Your task to perform on an android device: turn on notifications settings in the gmail app Image 0: 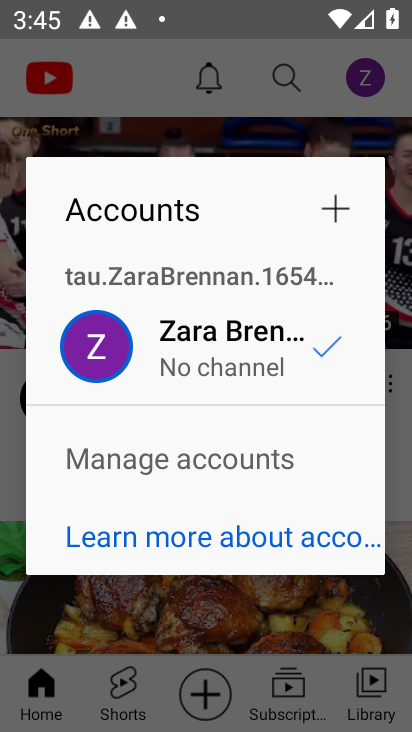
Step 0: press home button
Your task to perform on an android device: turn on notifications settings in the gmail app Image 1: 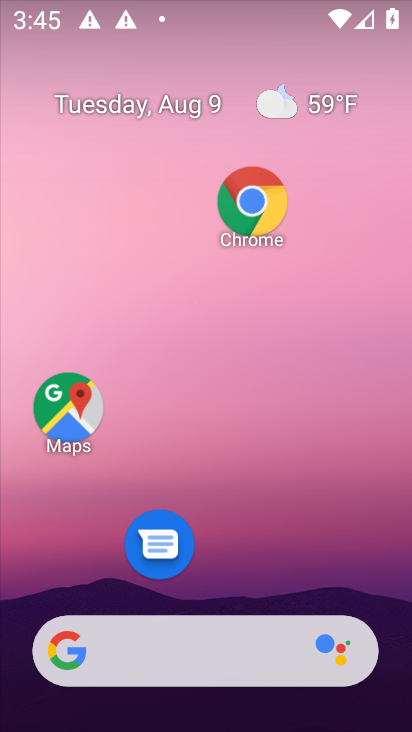
Step 1: drag from (189, 626) to (200, 200)
Your task to perform on an android device: turn on notifications settings in the gmail app Image 2: 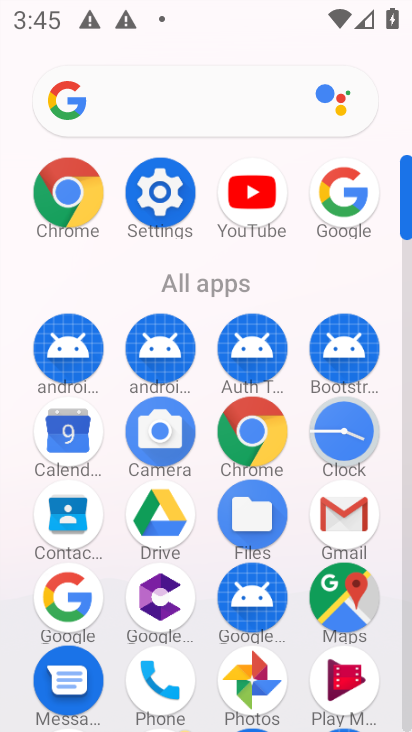
Step 2: click (316, 510)
Your task to perform on an android device: turn on notifications settings in the gmail app Image 3: 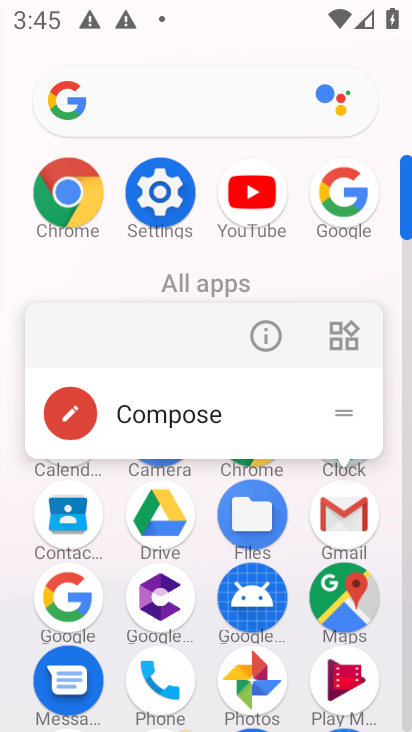
Step 3: click (316, 510)
Your task to perform on an android device: turn on notifications settings in the gmail app Image 4: 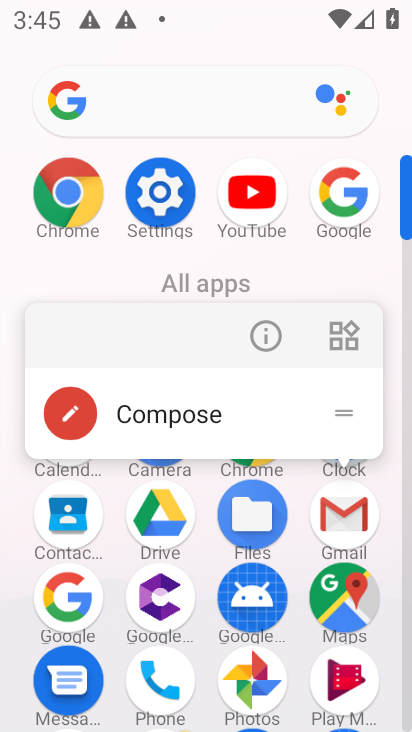
Step 4: click (326, 522)
Your task to perform on an android device: turn on notifications settings in the gmail app Image 5: 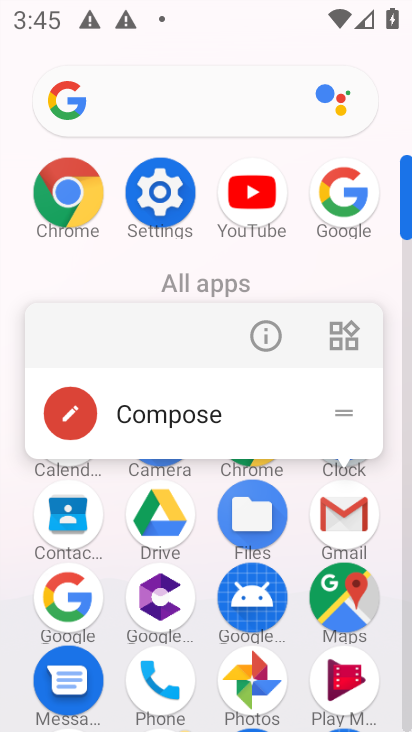
Step 5: click (340, 530)
Your task to perform on an android device: turn on notifications settings in the gmail app Image 6: 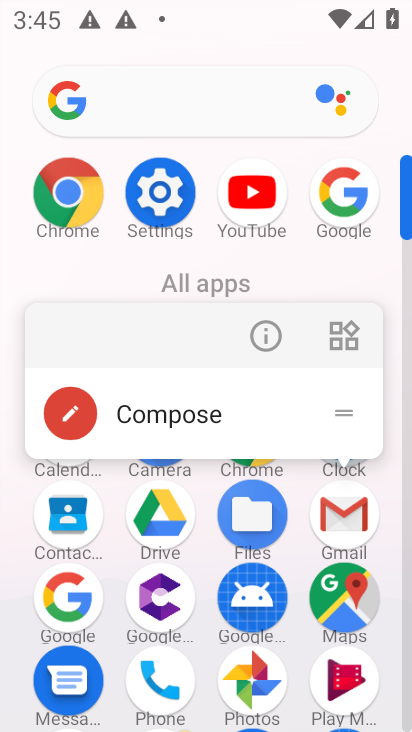
Step 6: click (337, 530)
Your task to perform on an android device: turn on notifications settings in the gmail app Image 7: 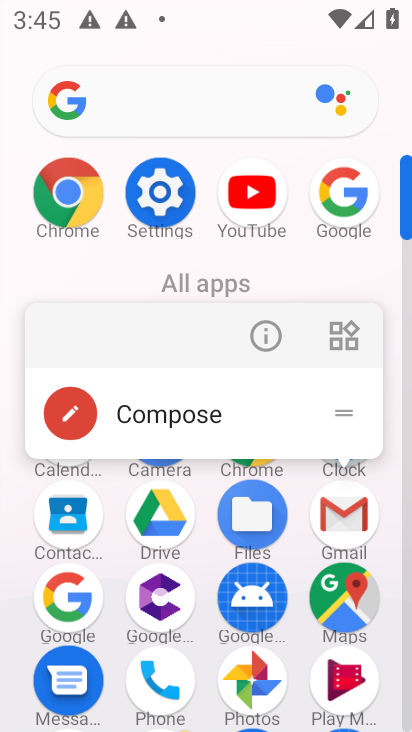
Step 7: click (340, 505)
Your task to perform on an android device: turn on notifications settings in the gmail app Image 8: 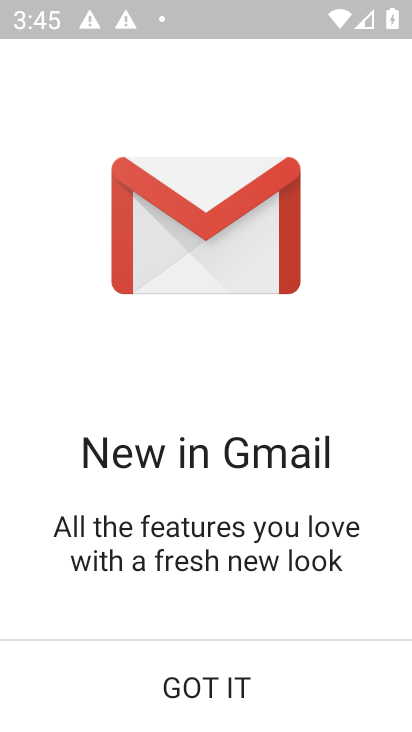
Step 8: click (220, 685)
Your task to perform on an android device: turn on notifications settings in the gmail app Image 9: 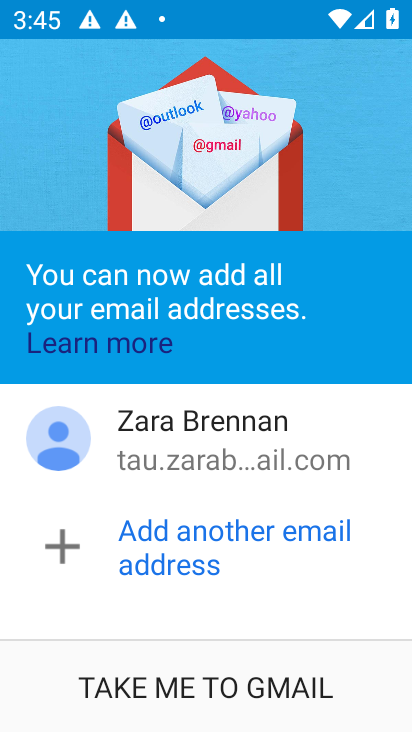
Step 9: click (219, 679)
Your task to perform on an android device: turn on notifications settings in the gmail app Image 10: 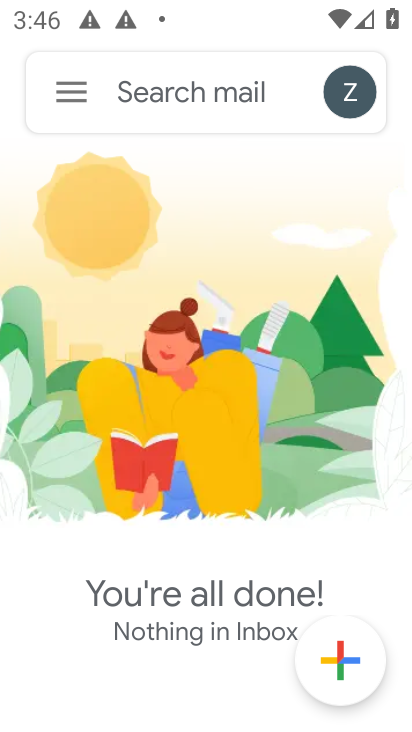
Step 10: click (81, 94)
Your task to perform on an android device: turn on notifications settings in the gmail app Image 11: 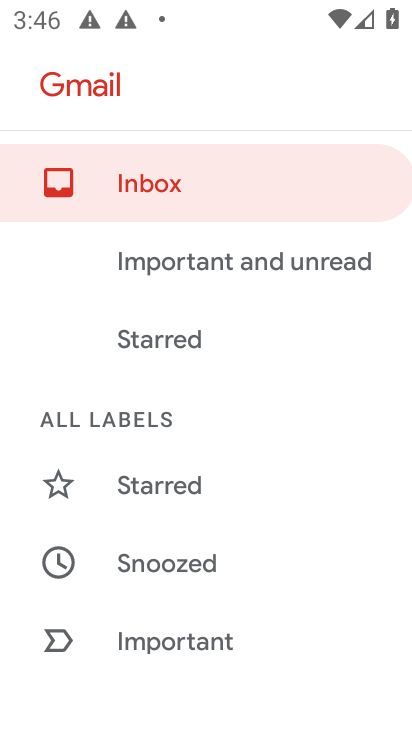
Step 11: drag from (164, 345) to (163, 200)
Your task to perform on an android device: turn on notifications settings in the gmail app Image 12: 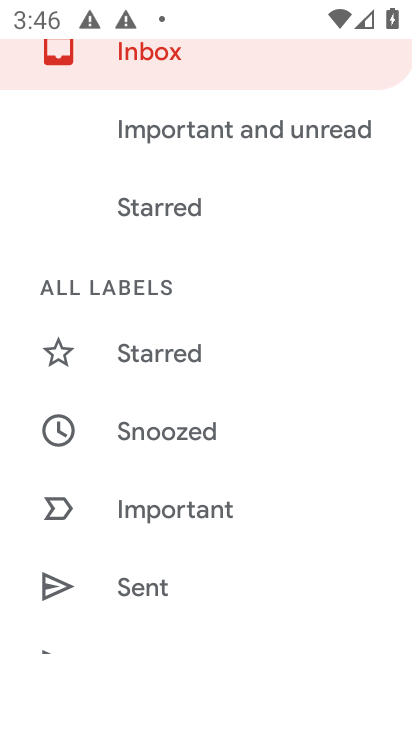
Step 12: drag from (129, 614) to (129, 199)
Your task to perform on an android device: turn on notifications settings in the gmail app Image 13: 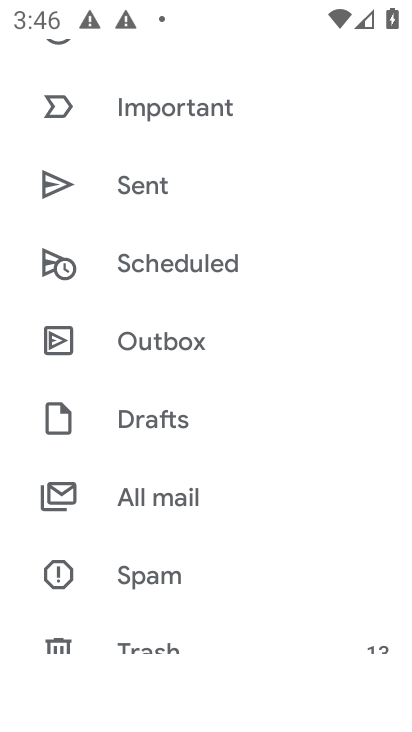
Step 13: drag from (167, 428) to (165, 301)
Your task to perform on an android device: turn on notifications settings in the gmail app Image 14: 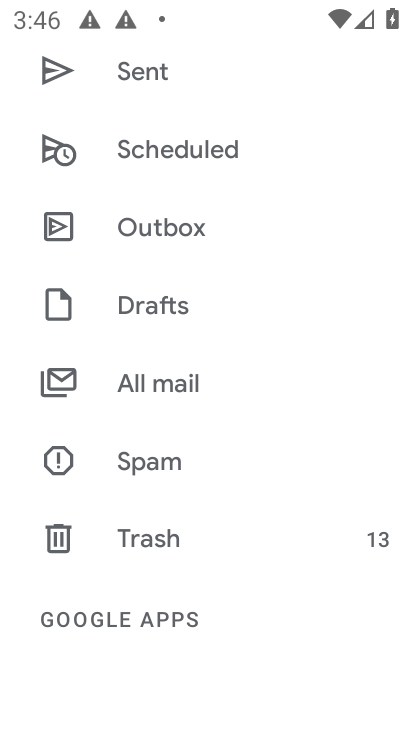
Step 14: drag from (155, 619) to (146, 356)
Your task to perform on an android device: turn on notifications settings in the gmail app Image 15: 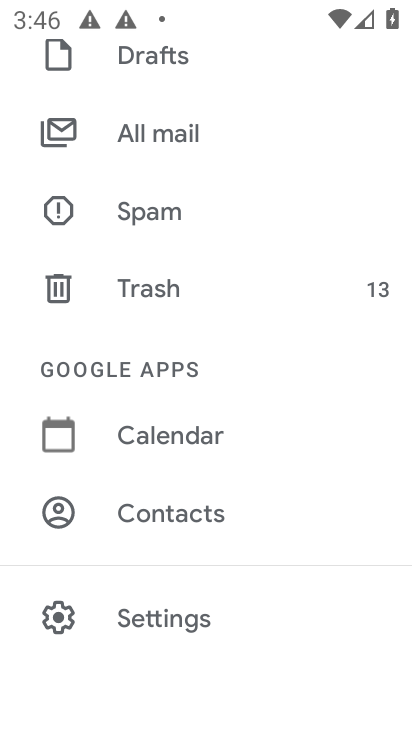
Step 15: click (173, 610)
Your task to perform on an android device: turn on notifications settings in the gmail app Image 16: 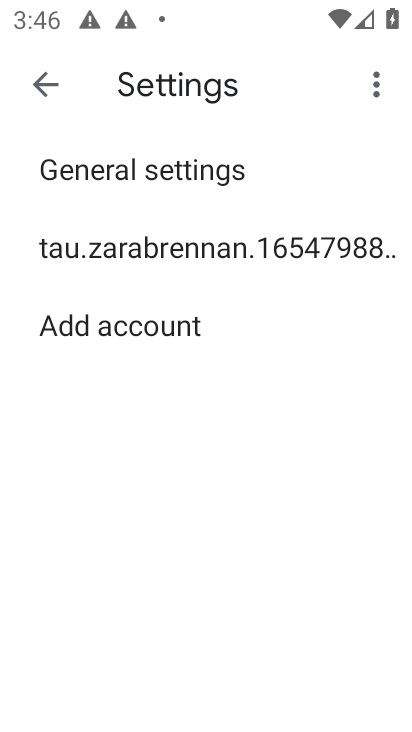
Step 16: click (127, 257)
Your task to perform on an android device: turn on notifications settings in the gmail app Image 17: 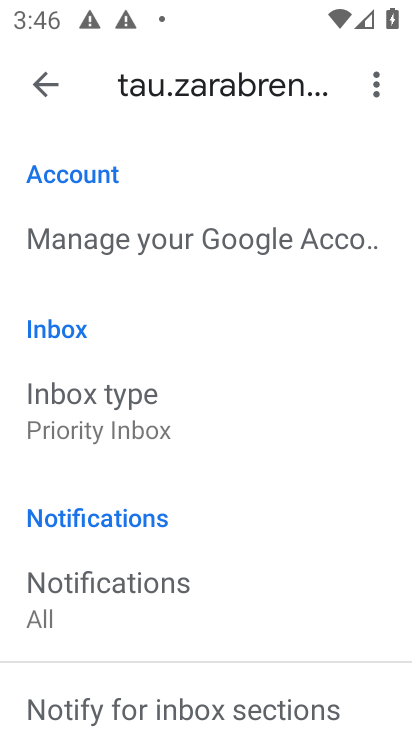
Step 17: drag from (94, 696) to (102, 242)
Your task to perform on an android device: turn on notifications settings in the gmail app Image 18: 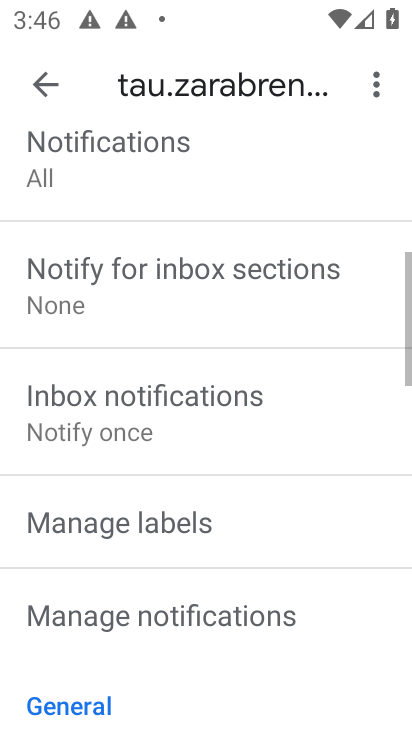
Step 18: click (105, 613)
Your task to perform on an android device: turn on notifications settings in the gmail app Image 19: 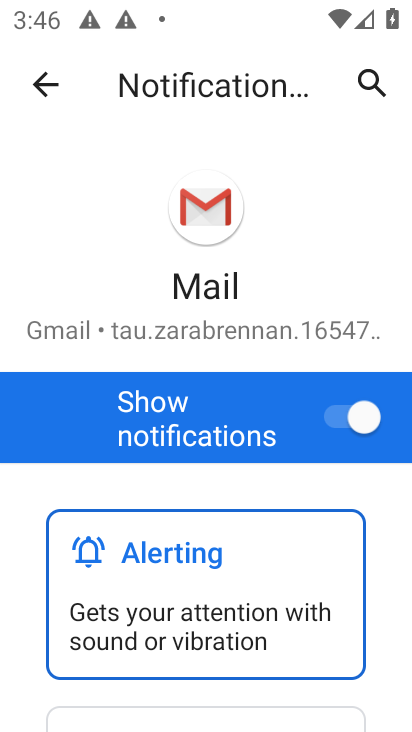
Step 19: task complete